Your task to perform on an android device: find which apps use the phone's location Image 0: 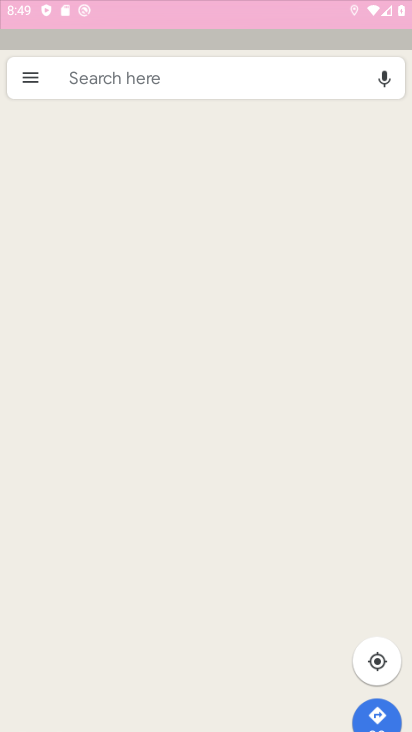
Step 0: drag from (220, 673) to (154, 23)
Your task to perform on an android device: find which apps use the phone's location Image 1: 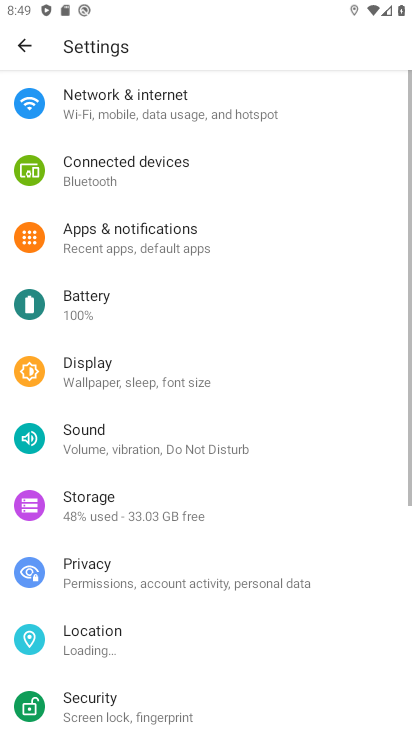
Step 1: press home button
Your task to perform on an android device: find which apps use the phone's location Image 2: 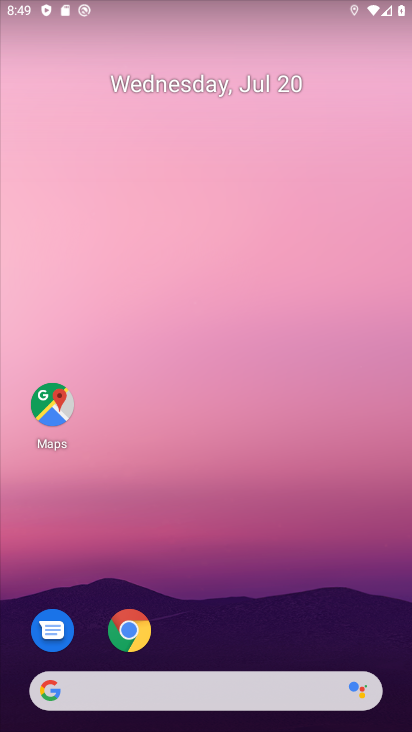
Step 2: drag from (194, 689) to (282, 187)
Your task to perform on an android device: find which apps use the phone's location Image 3: 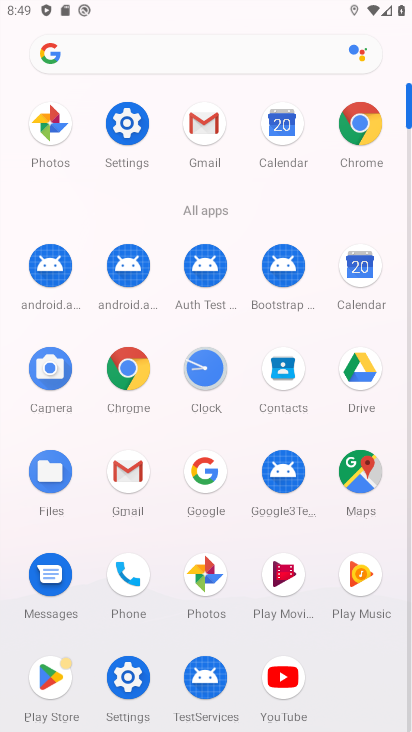
Step 3: click (125, 674)
Your task to perform on an android device: find which apps use the phone's location Image 4: 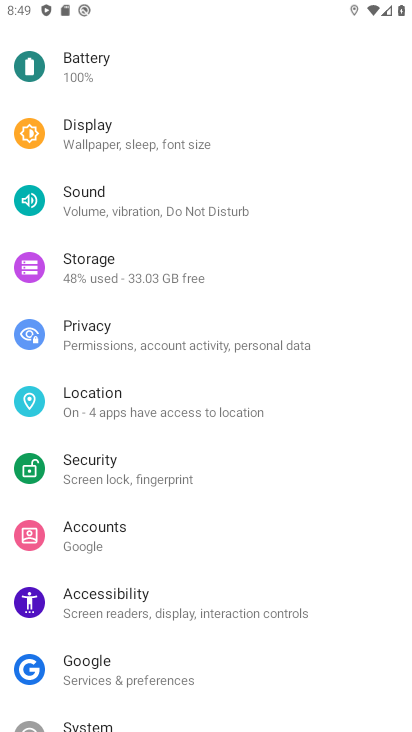
Step 4: click (108, 399)
Your task to perform on an android device: find which apps use the phone's location Image 5: 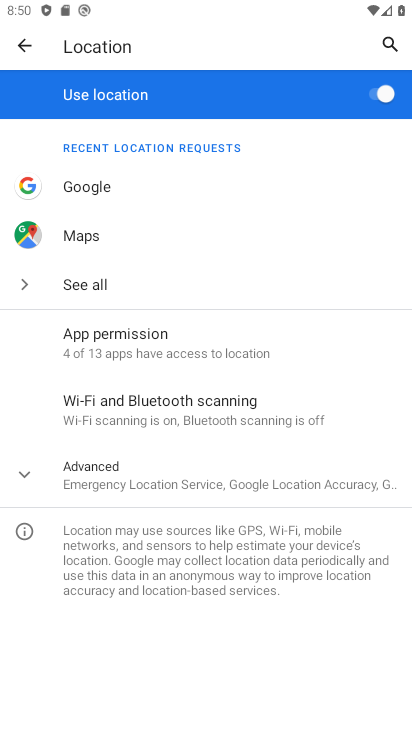
Step 5: click (115, 351)
Your task to perform on an android device: find which apps use the phone's location Image 6: 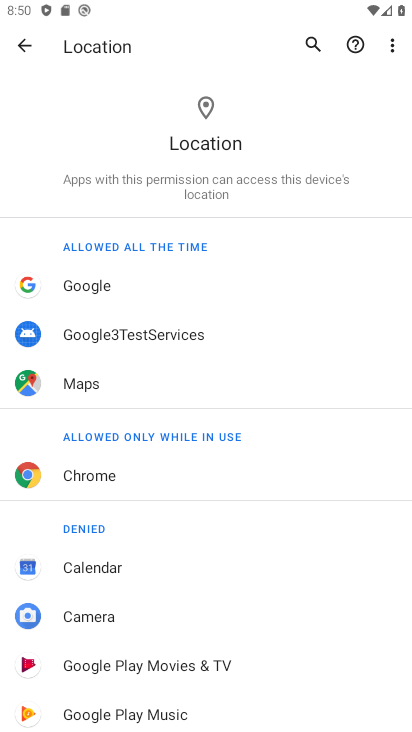
Step 6: task complete